Your task to perform on an android device: Look up the best selling books on Goodreads. Image 0: 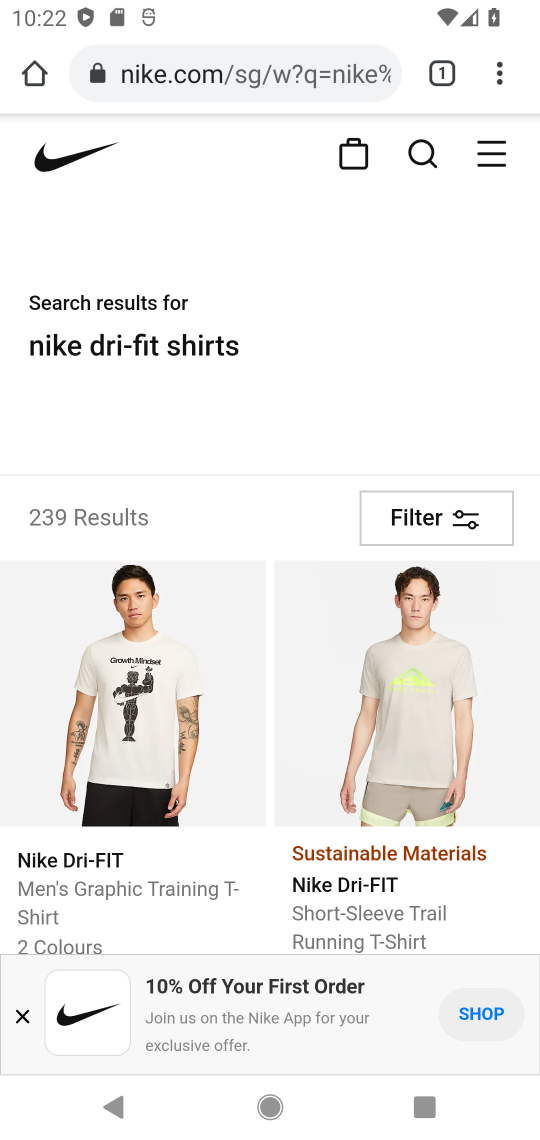
Step 0: press home button
Your task to perform on an android device: Look up the best selling books on Goodreads. Image 1: 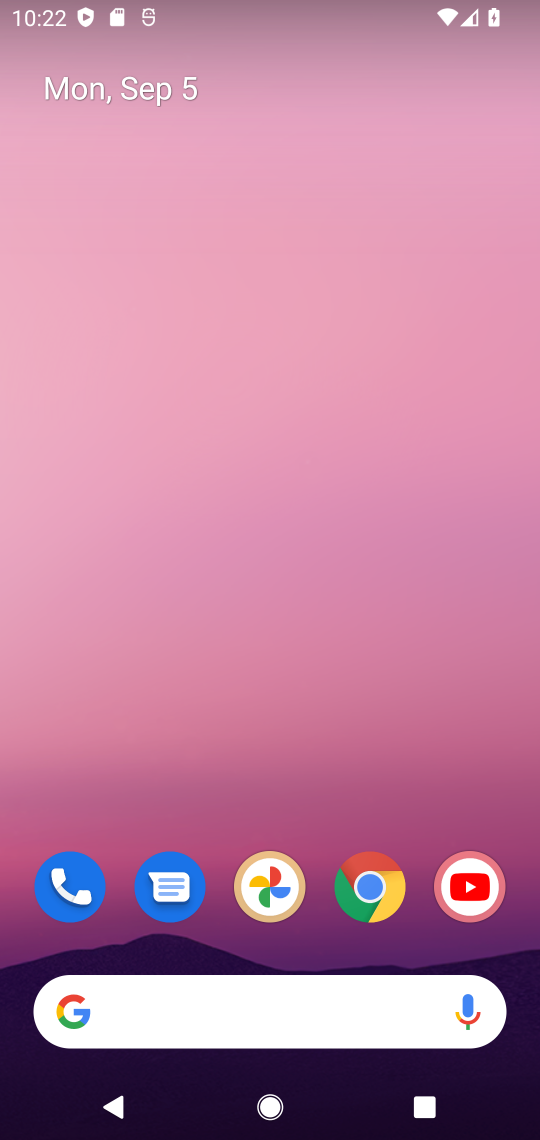
Step 1: click (370, 877)
Your task to perform on an android device: Look up the best selling books on Goodreads. Image 2: 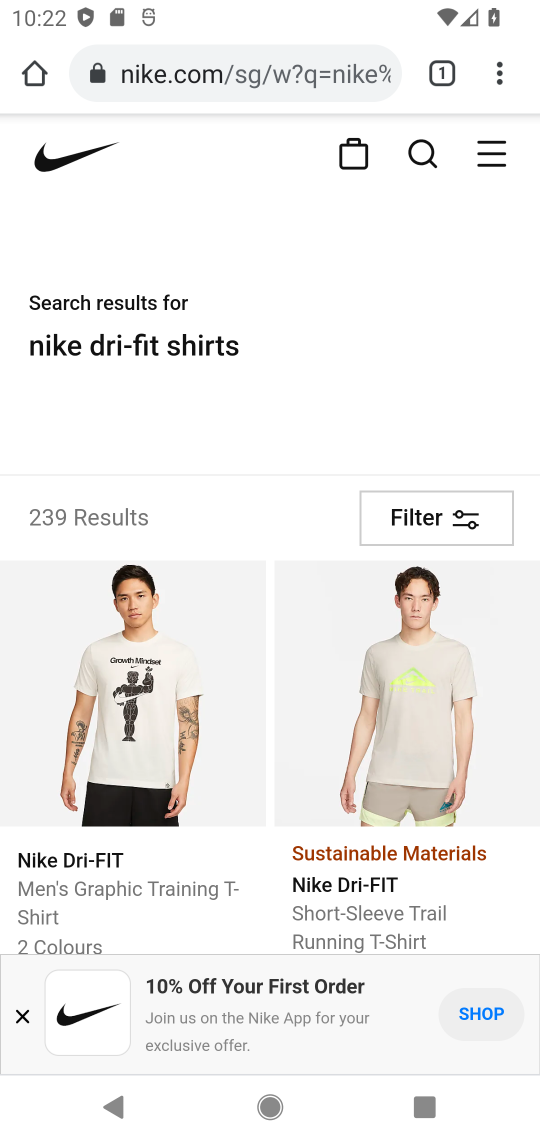
Step 2: click (275, 69)
Your task to perform on an android device: Look up the best selling books on Goodreads. Image 3: 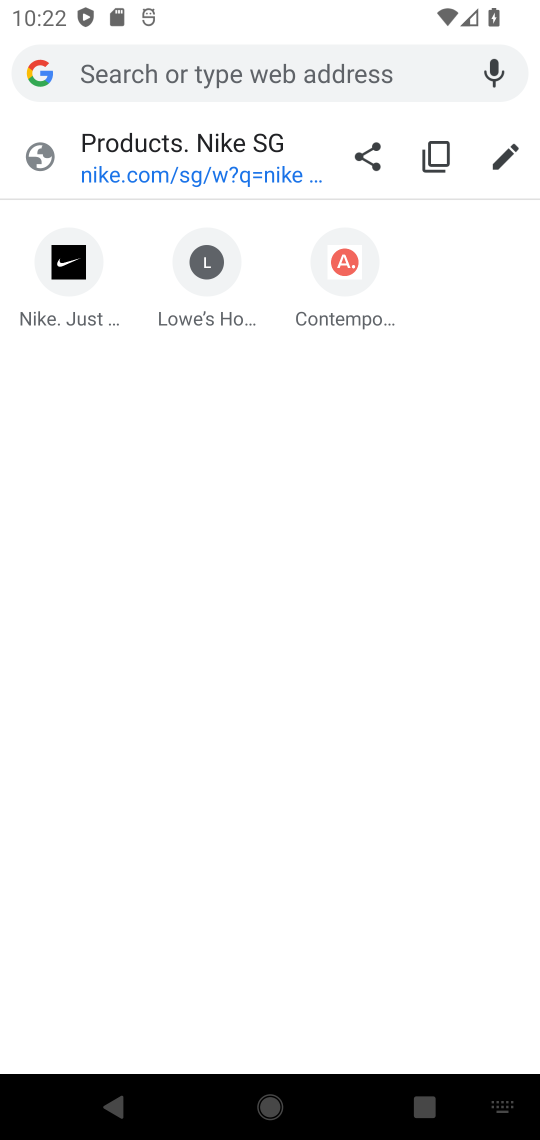
Step 3: type "Goodreads"
Your task to perform on an android device: Look up the best selling books on Goodreads. Image 4: 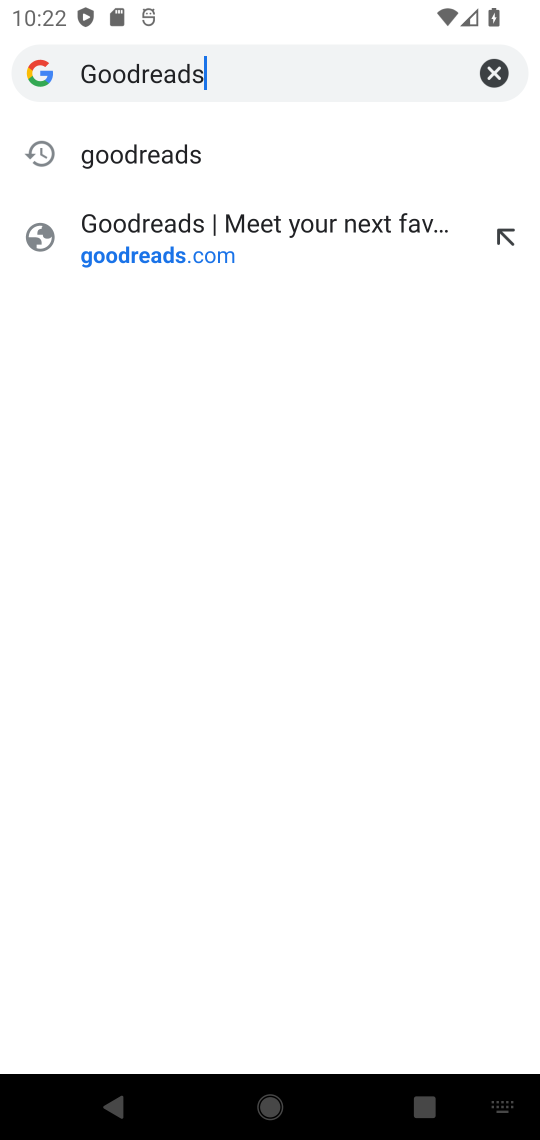
Step 4: click (210, 164)
Your task to perform on an android device: Look up the best selling books on Goodreads. Image 5: 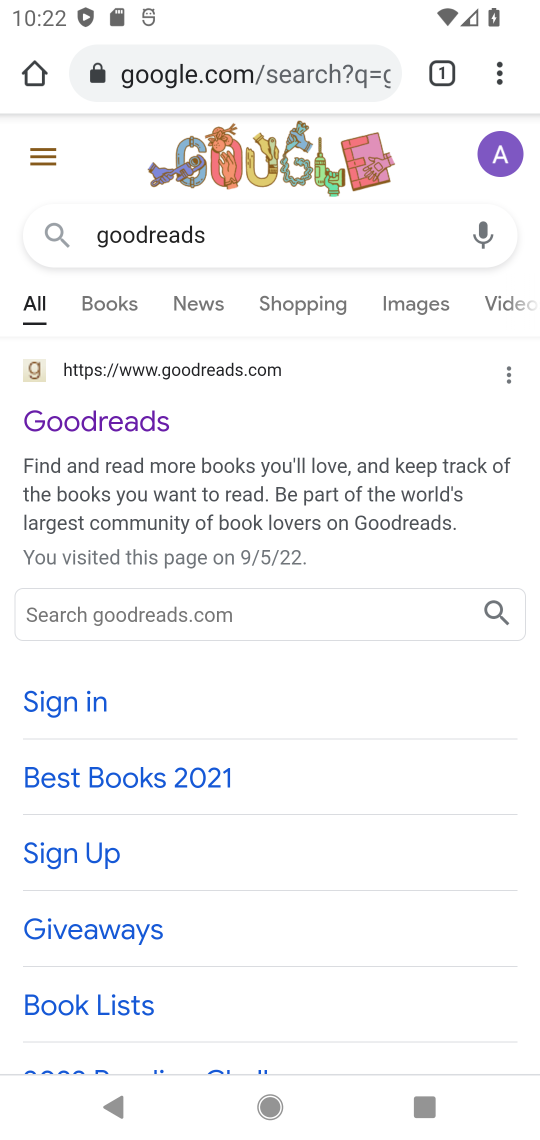
Step 5: click (130, 434)
Your task to perform on an android device: Look up the best selling books on Goodreads. Image 6: 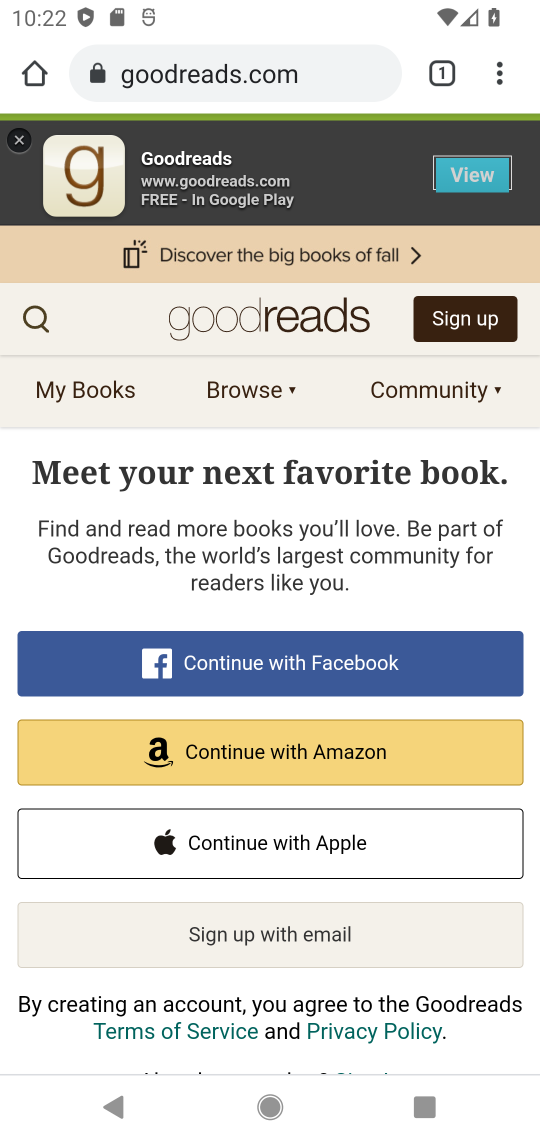
Step 6: click (43, 309)
Your task to perform on an android device: Look up the best selling books on Goodreads. Image 7: 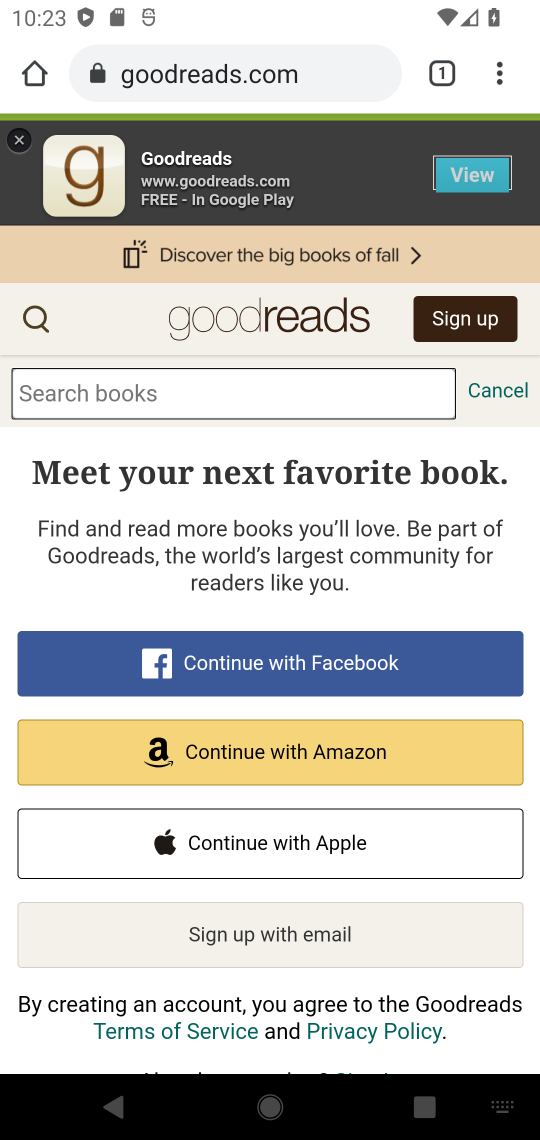
Step 7: type "the best selling books"
Your task to perform on an android device: Look up the best selling books on Goodreads. Image 8: 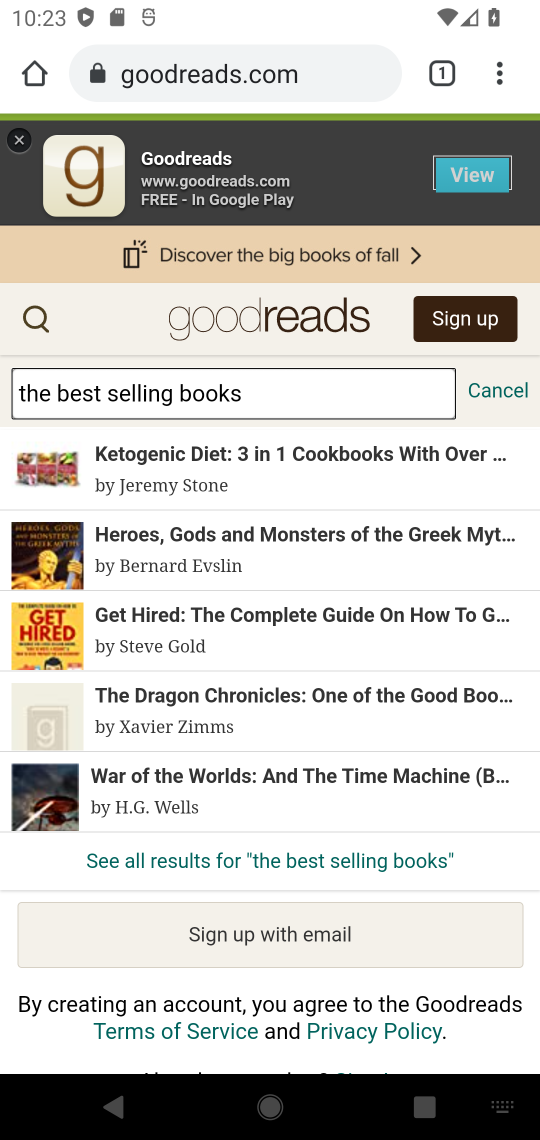
Step 8: task complete